Your task to perform on an android device: turn off improve location accuracy Image 0: 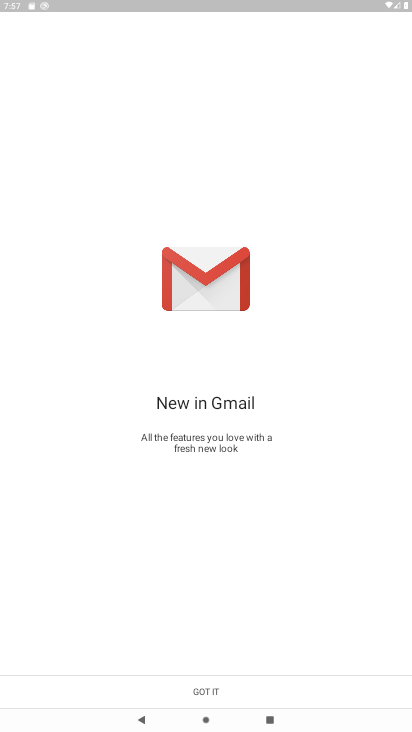
Step 0: press home button
Your task to perform on an android device: turn off improve location accuracy Image 1: 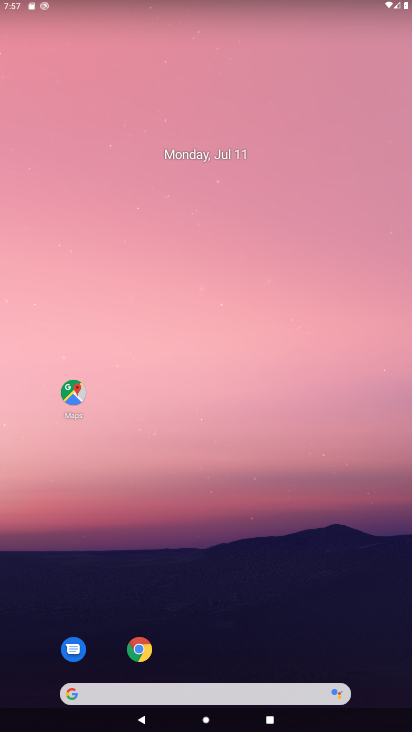
Step 1: drag from (261, 619) to (343, 85)
Your task to perform on an android device: turn off improve location accuracy Image 2: 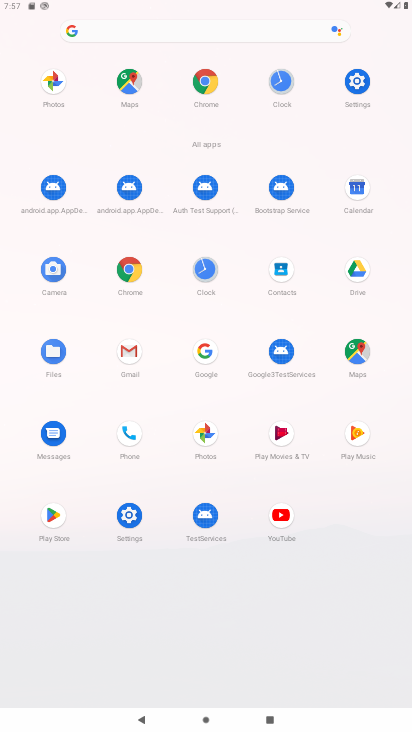
Step 2: click (357, 77)
Your task to perform on an android device: turn off improve location accuracy Image 3: 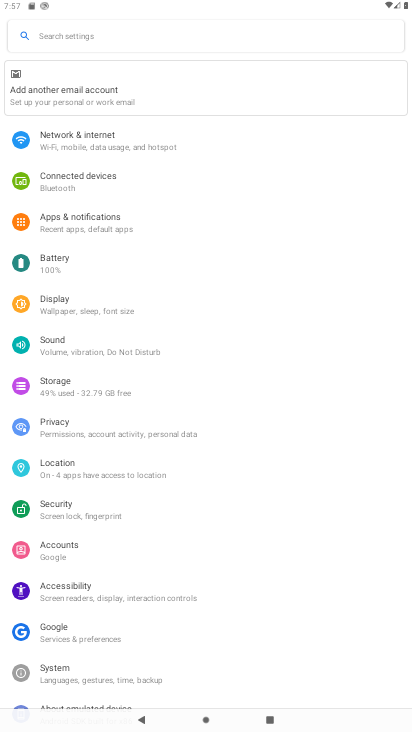
Step 3: click (114, 469)
Your task to perform on an android device: turn off improve location accuracy Image 4: 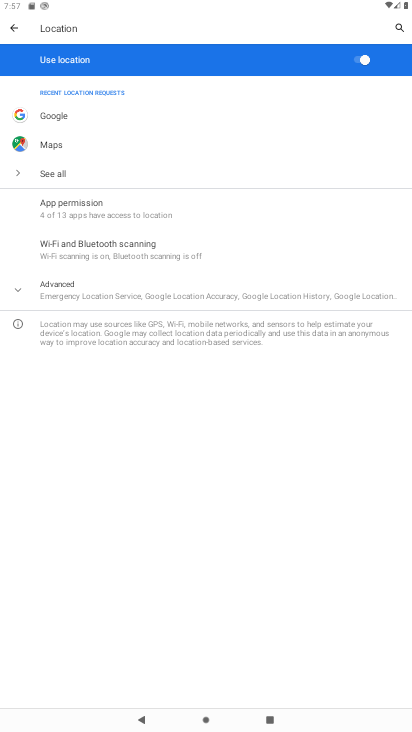
Step 4: click (93, 283)
Your task to perform on an android device: turn off improve location accuracy Image 5: 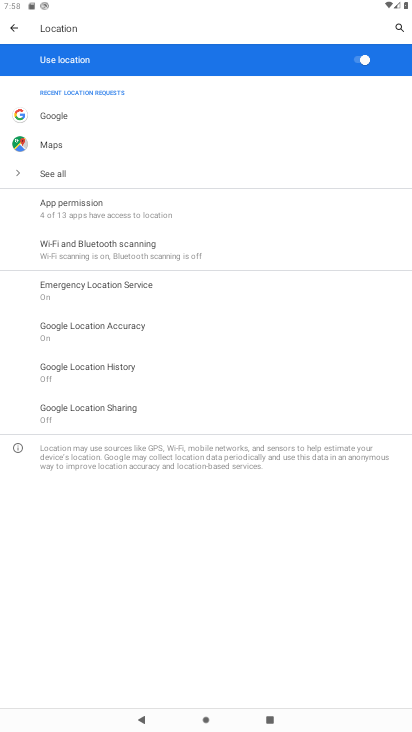
Step 5: click (87, 322)
Your task to perform on an android device: turn off improve location accuracy Image 6: 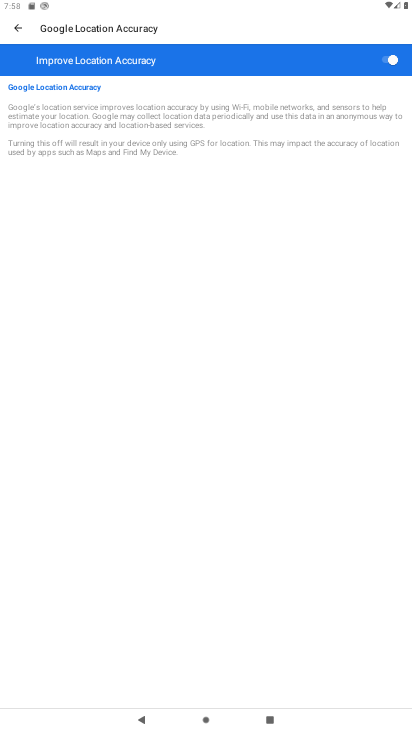
Step 6: click (383, 50)
Your task to perform on an android device: turn off improve location accuracy Image 7: 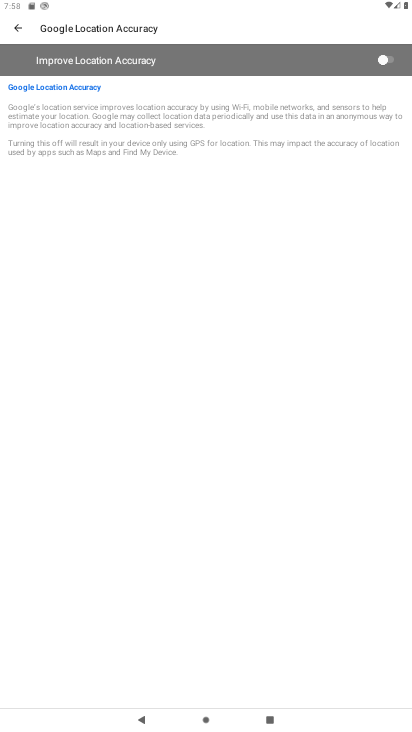
Step 7: task complete